Your task to perform on an android device: change alarm snooze length Image 0: 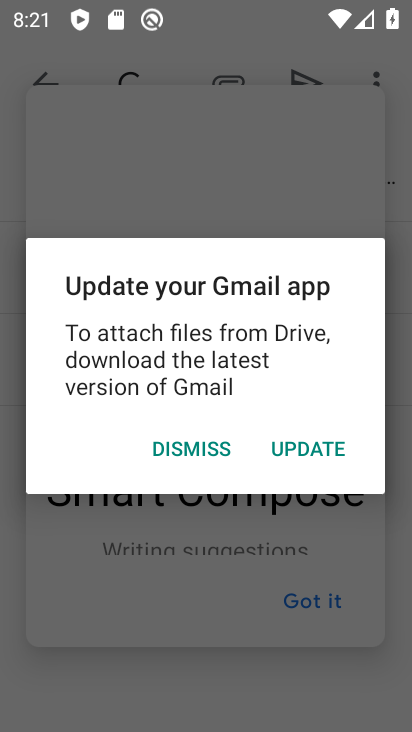
Step 0: click (297, 603)
Your task to perform on an android device: change alarm snooze length Image 1: 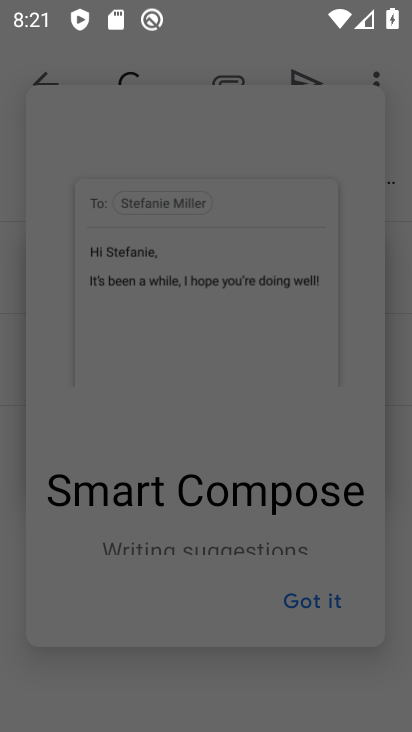
Step 1: press home button
Your task to perform on an android device: change alarm snooze length Image 2: 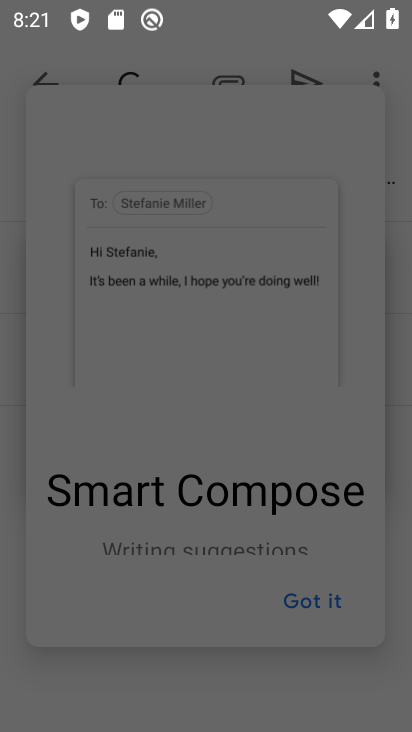
Step 2: press home button
Your task to perform on an android device: change alarm snooze length Image 3: 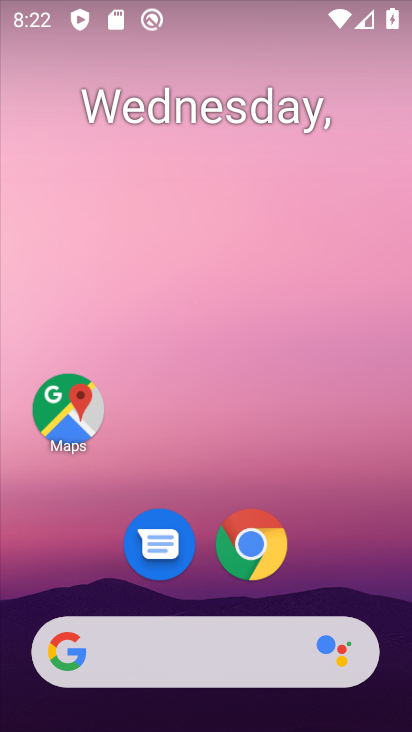
Step 3: press home button
Your task to perform on an android device: change alarm snooze length Image 4: 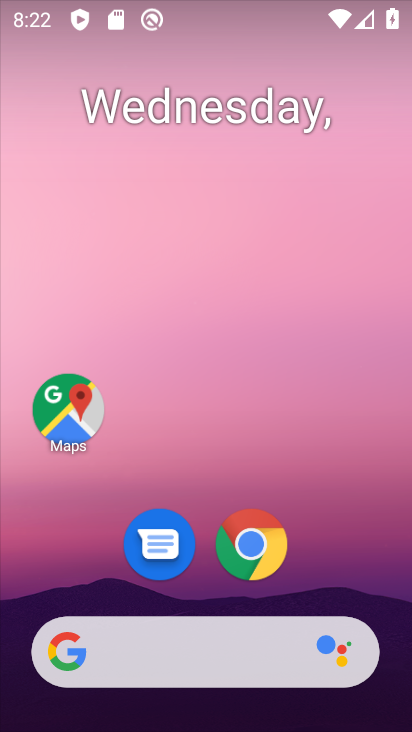
Step 4: drag from (361, 672) to (176, 153)
Your task to perform on an android device: change alarm snooze length Image 5: 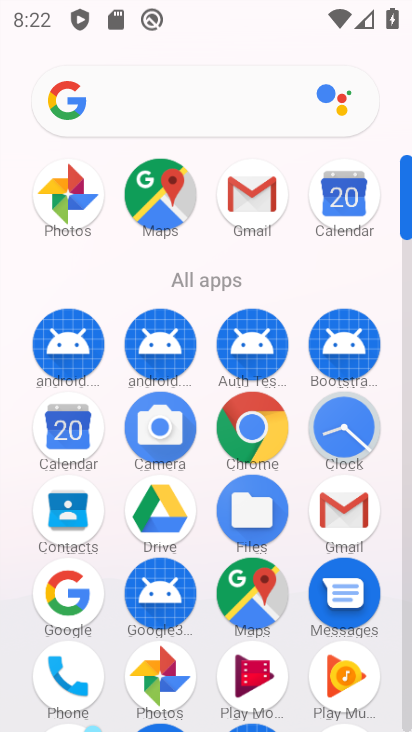
Step 5: click (328, 431)
Your task to perform on an android device: change alarm snooze length Image 6: 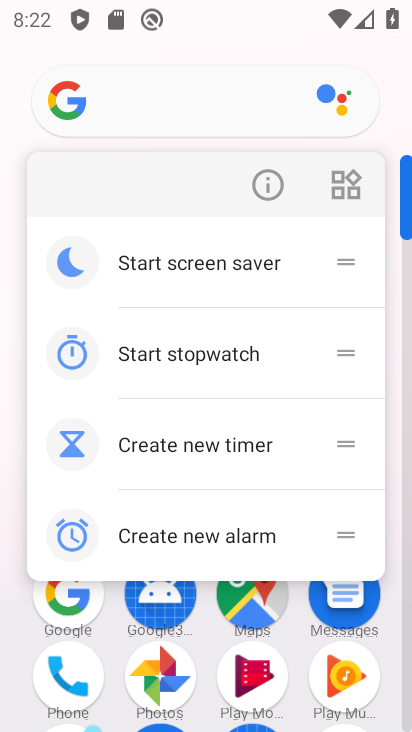
Step 6: click (332, 429)
Your task to perform on an android device: change alarm snooze length Image 7: 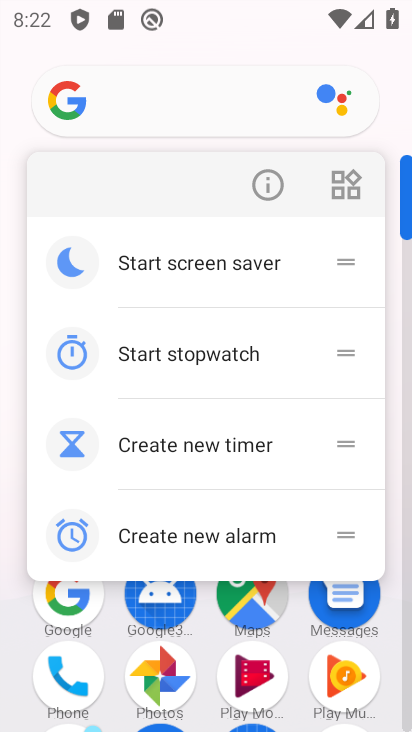
Step 7: click (392, 493)
Your task to perform on an android device: change alarm snooze length Image 8: 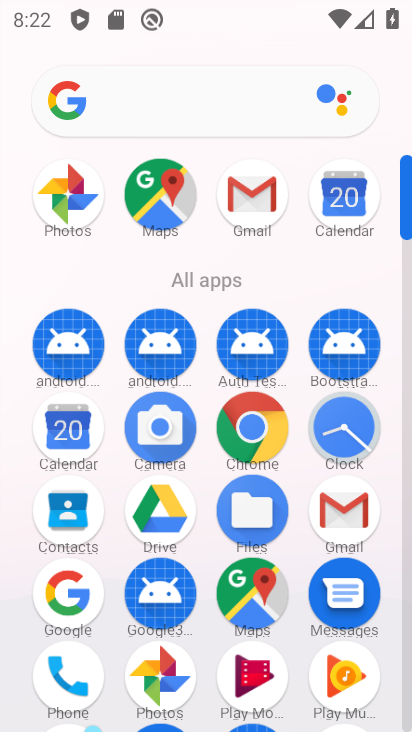
Step 8: click (398, 490)
Your task to perform on an android device: change alarm snooze length Image 9: 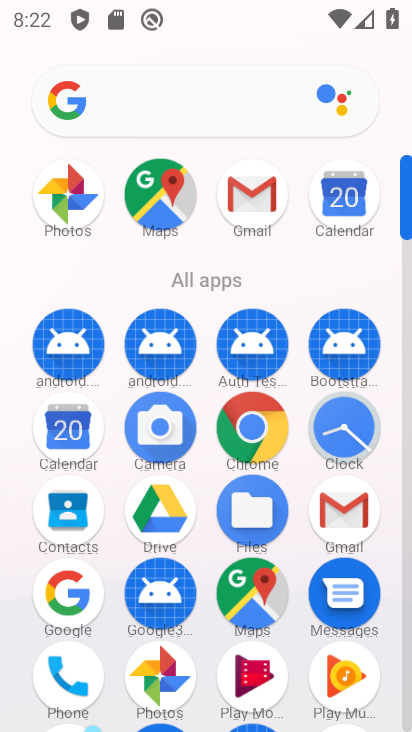
Step 9: click (398, 489)
Your task to perform on an android device: change alarm snooze length Image 10: 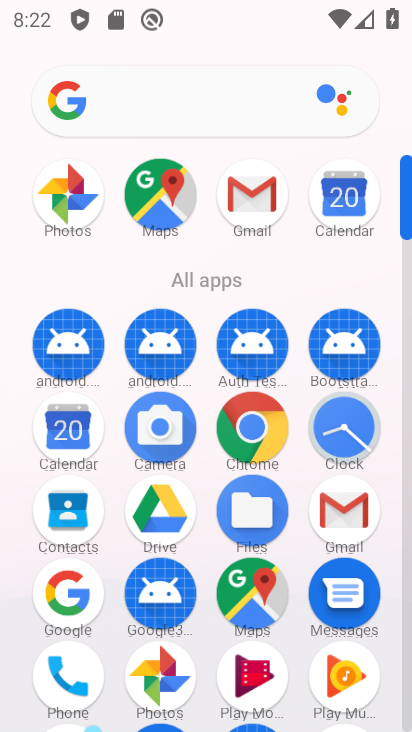
Step 10: click (358, 423)
Your task to perform on an android device: change alarm snooze length Image 11: 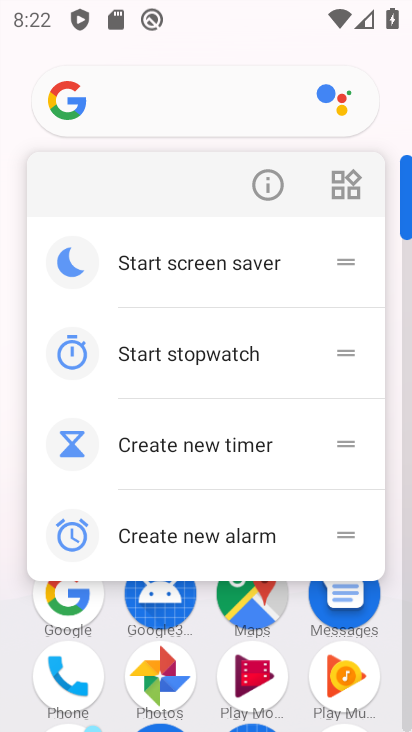
Step 11: click (358, 423)
Your task to perform on an android device: change alarm snooze length Image 12: 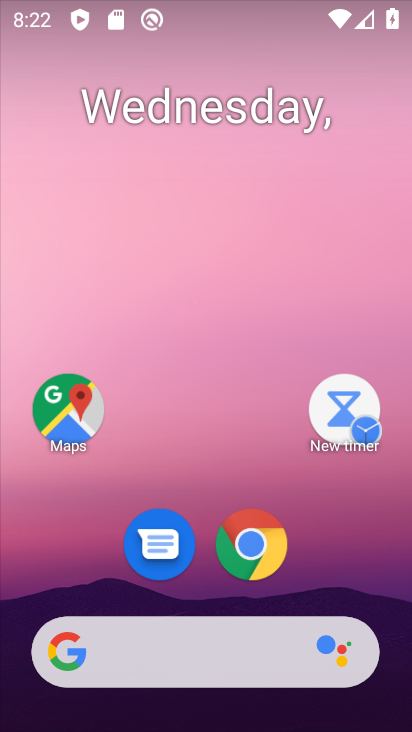
Step 12: drag from (241, 670) to (285, 140)
Your task to perform on an android device: change alarm snooze length Image 13: 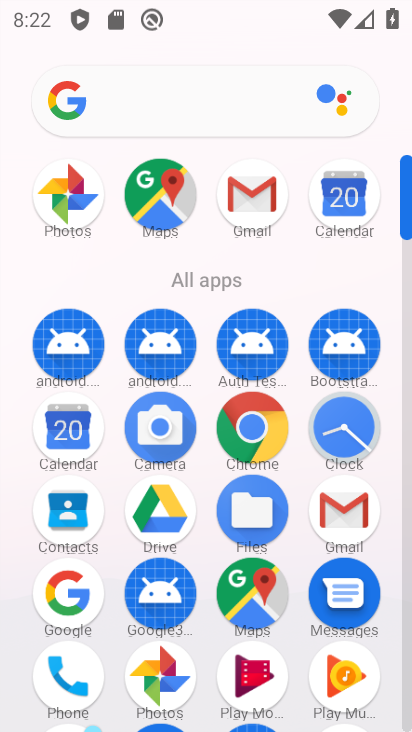
Step 13: click (342, 418)
Your task to perform on an android device: change alarm snooze length Image 14: 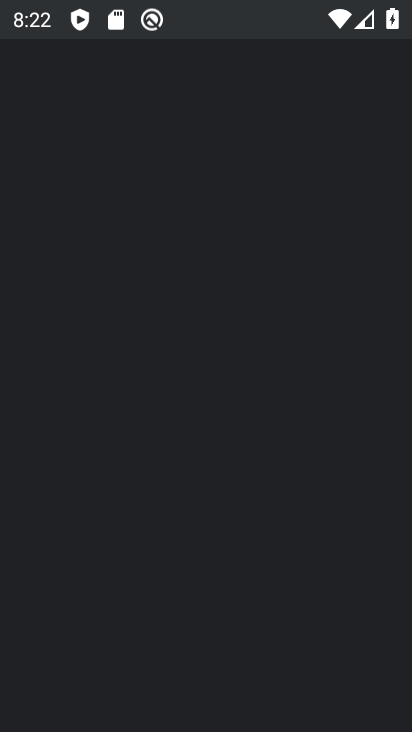
Step 14: click (342, 418)
Your task to perform on an android device: change alarm snooze length Image 15: 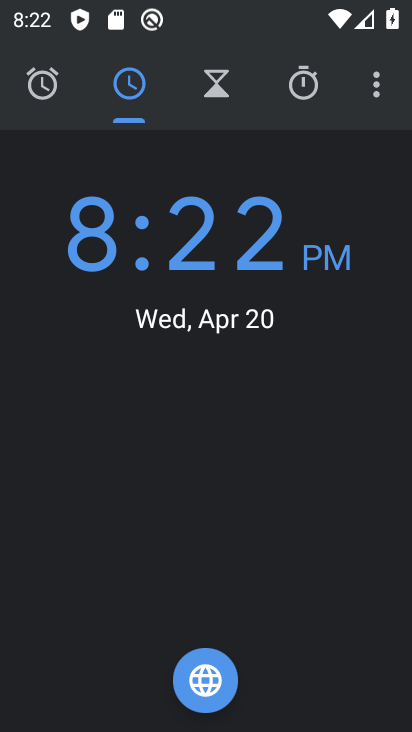
Step 15: click (379, 86)
Your task to perform on an android device: change alarm snooze length Image 16: 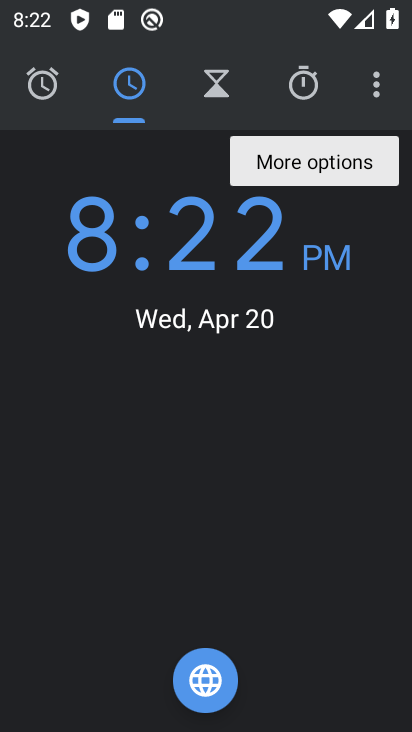
Step 16: click (362, 100)
Your task to perform on an android device: change alarm snooze length Image 17: 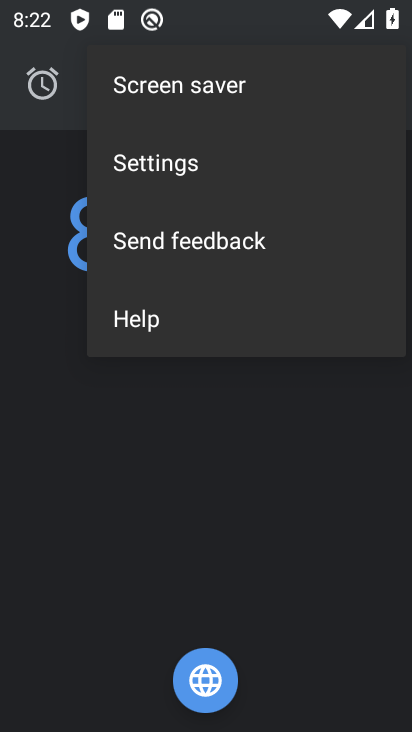
Step 17: click (375, 84)
Your task to perform on an android device: change alarm snooze length Image 18: 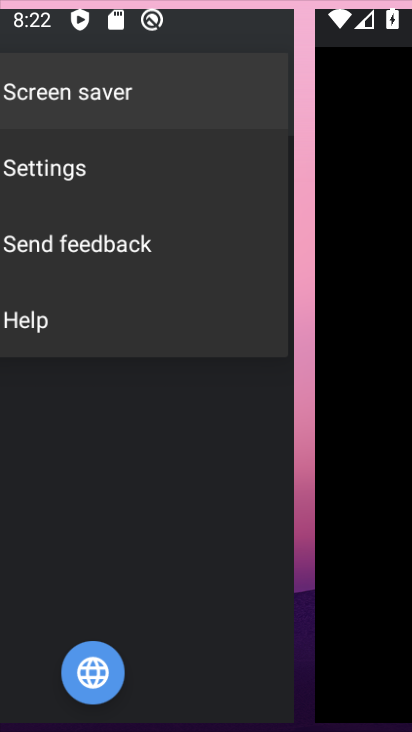
Step 18: click (175, 164)
Your task to perform on an android device: change alarm snooze length Image 19: 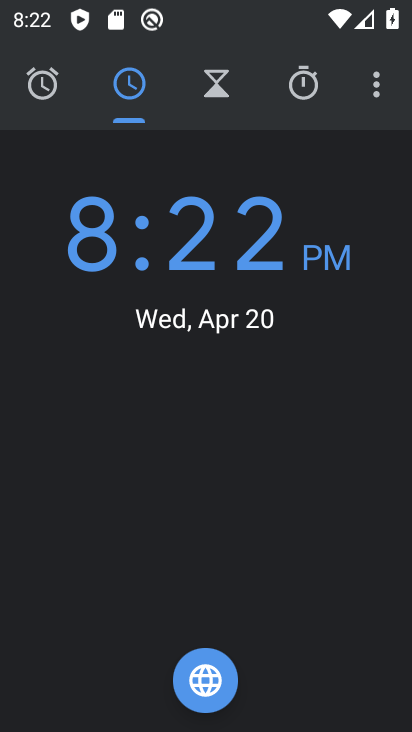
Step 19: click (364, 82)
Your task to perform on an android device: change alarm snooze length Image 20: 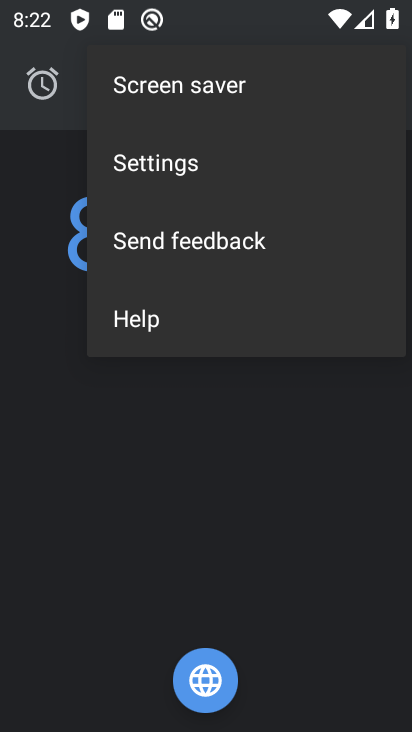
Step 20: click (166, 144)
Your task to perform on an android device: change alarm snooze length Image 21: 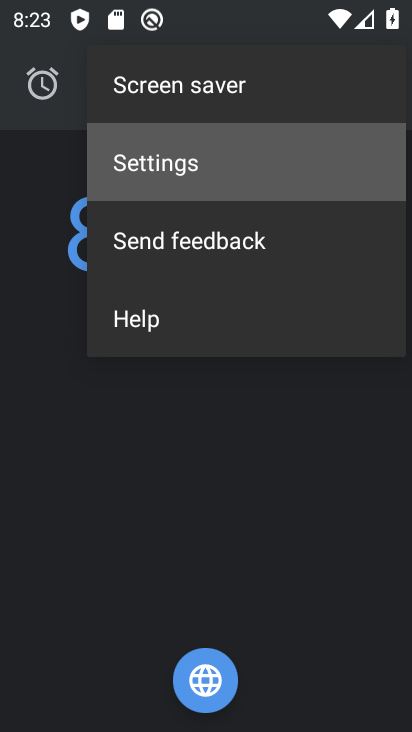
Step 21: click (163, 164)
Your task to perform on an android device: change alarm snooze length Image 22: 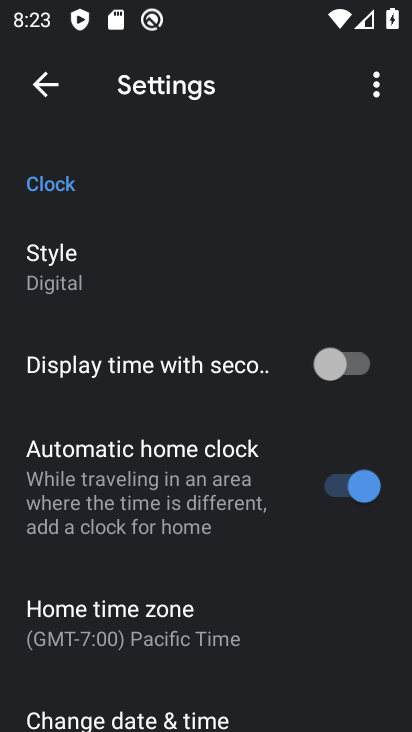
Step 22: drag from (162, 667) to (121, 399)
Your task to perform on an android device: change alarm snooze length Image 23: 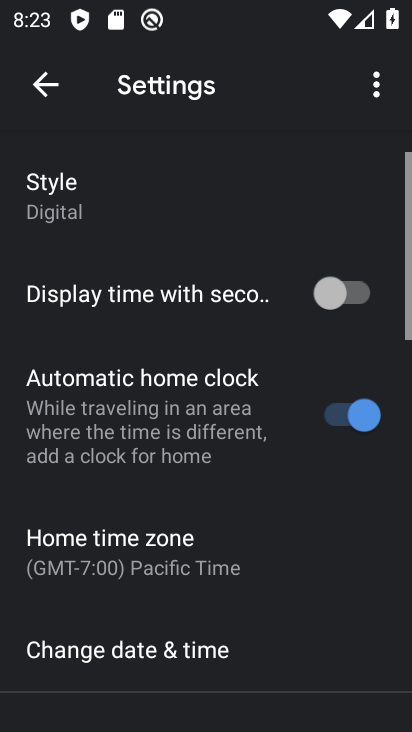
Step 23: click (190, 412)
Your task to perform on an android device: change alarm snooze length Image 24: 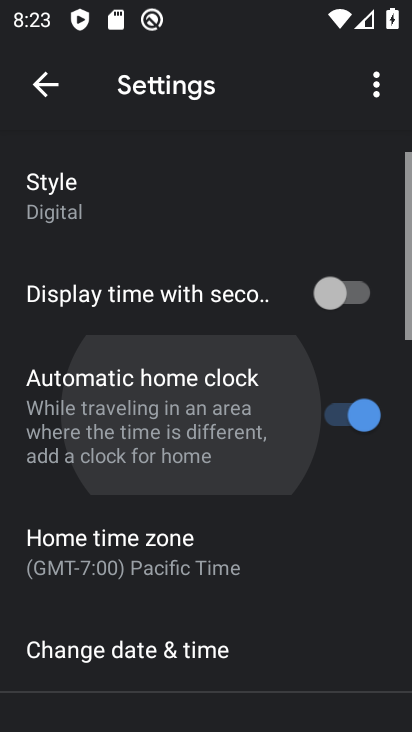
Step 24: drag from (220, 572) to (175, 275)
Your task to perform on an android device: change alarm snooze length Image 25: 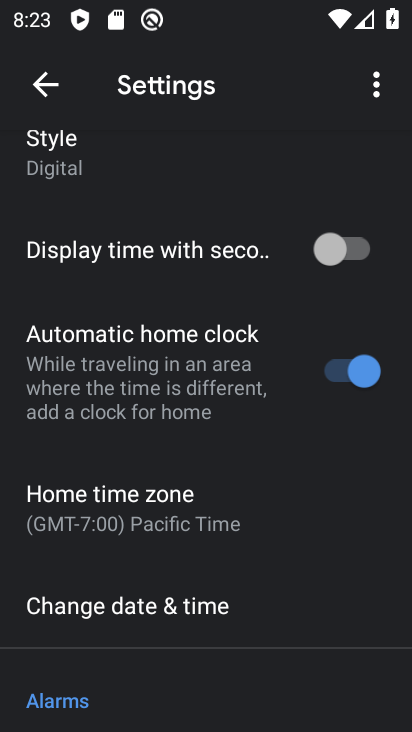
Step 25: drag from (152, 622) to (70, 309)
Your task to perform on an android device: change alarm snooze length Image 26: 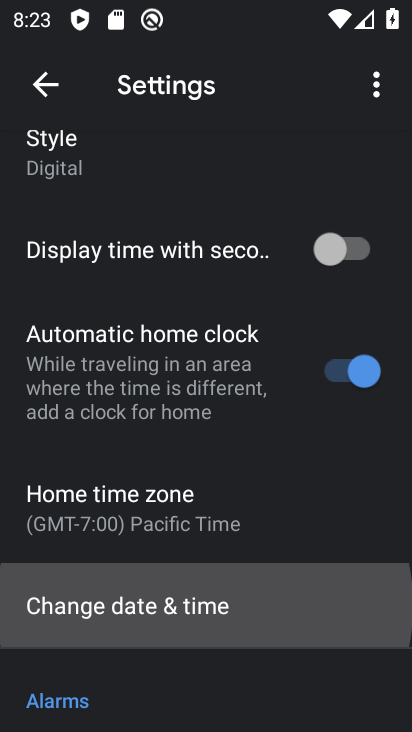
Step 26: drag from (180, 505) to (111, 189)
Your task to perform on an android device: change alarm snooze length Image 27: 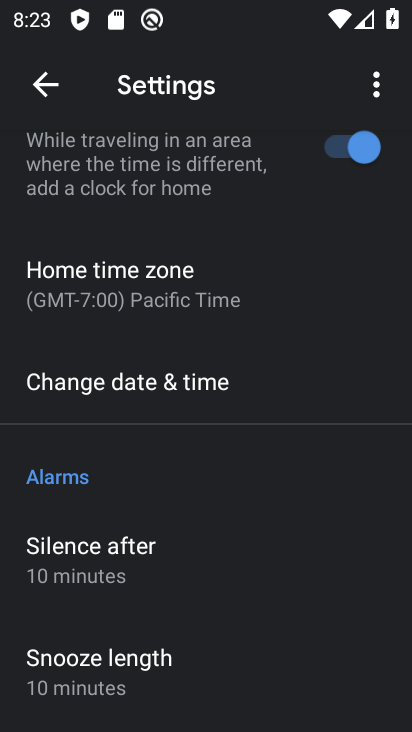
Step 27: drag from (89, 661) to (89, 700)
Your task to perform on an android device: change alarm snooze length Image 28: 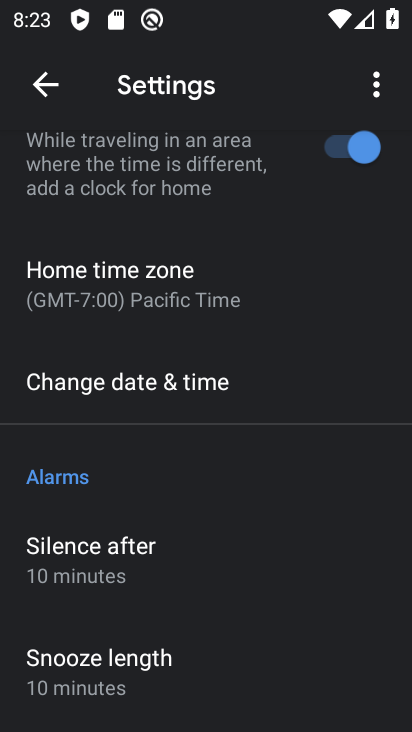
Step 28: click (80, 681)
Your task to perform on an android device: change alarm snooze length Image 29: 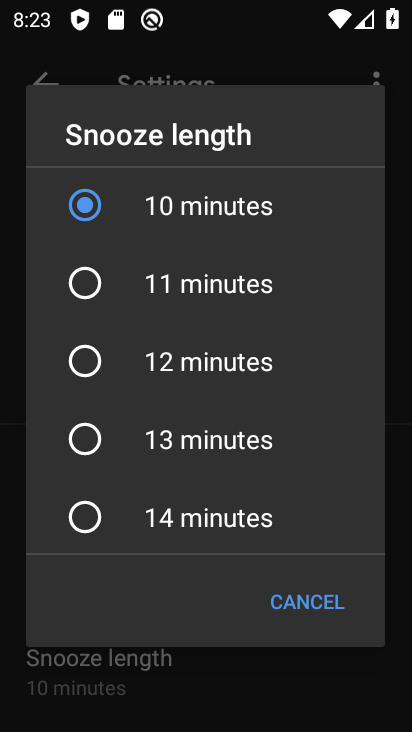
Step 29: click (82, 438)
Your task to perform on an android device: change alarm snooze length Image 30: 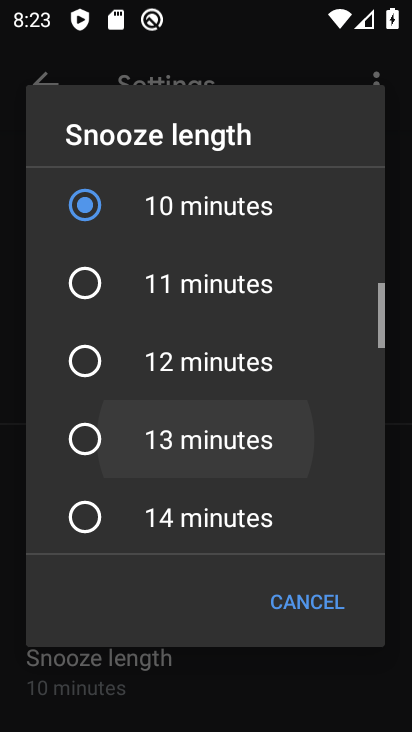
Step 30: click (82, 438)
Your task to perform on an android device: change alarm snooze length Image 31: 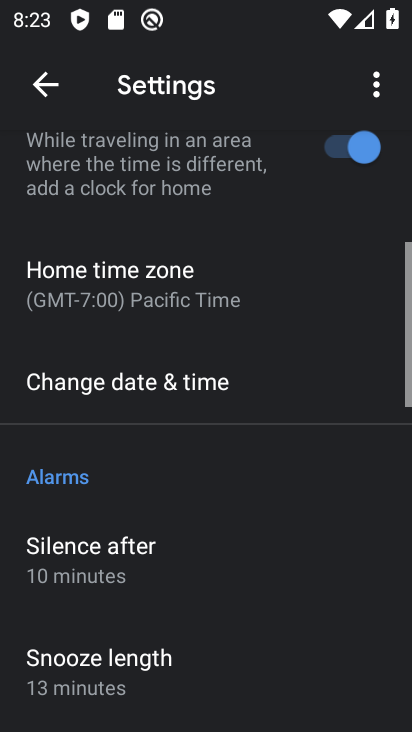
Step 31: click (82, 438)
Your task to perform on an android device: change alarm snooze length Image 32: 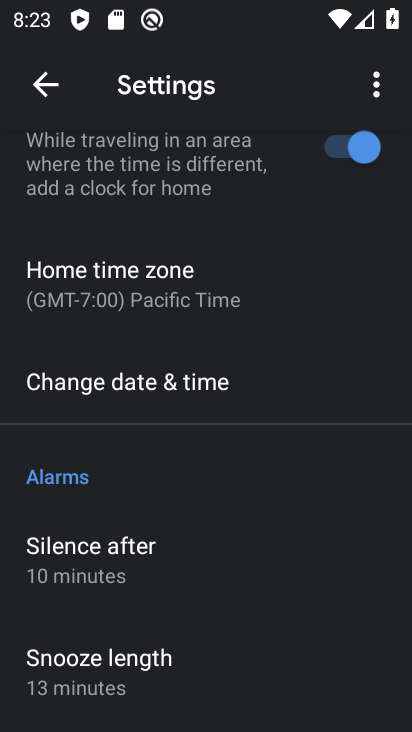
Step 32: task complete